Your task to perform on an android device: turn on data saver in the chrome app Image 0: 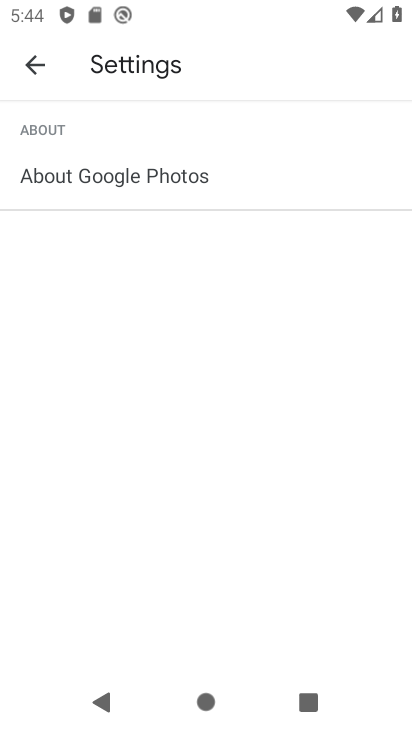
Step 0: press home button
Your task to perform on an android device: turn on data saver in the chrome app Image 1: 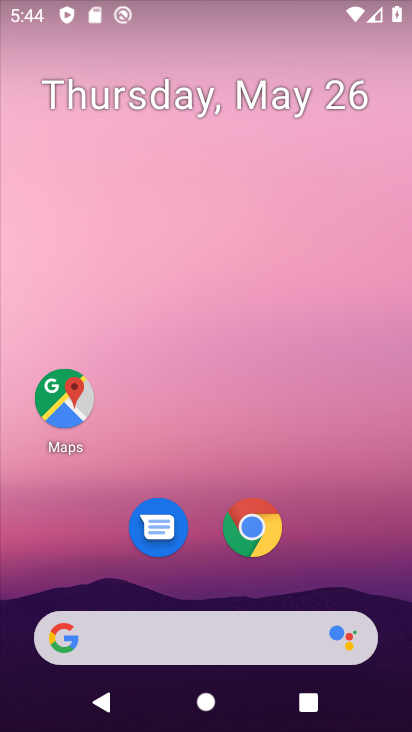
Step 1: click (259, 526)
Your task to perform on an android device: turn on data saver in the chrome app Image 2: 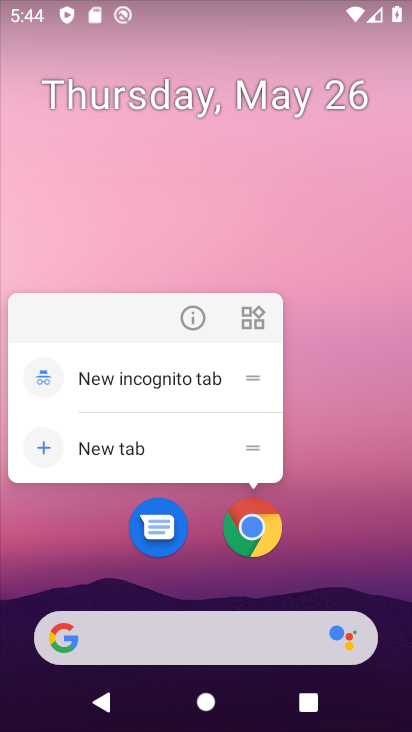
Step 2: click (252, 530)
Your task to perform on an android device: turn on data saver in the chrome app Image 3: 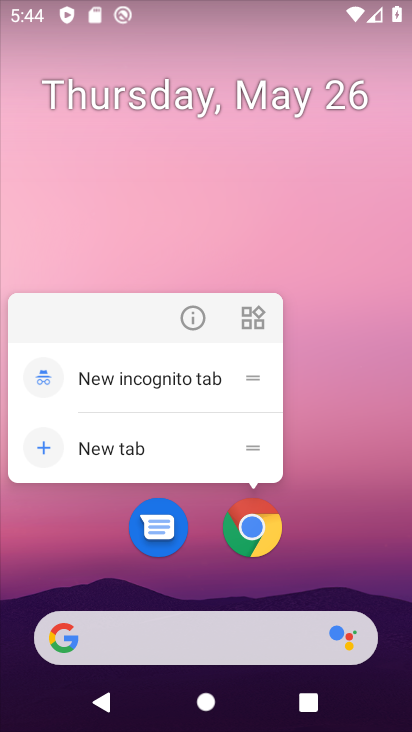
Step 3: click (252, 530)
Your task to perform on an android device: turn on data saver in the chrome app Image 4: 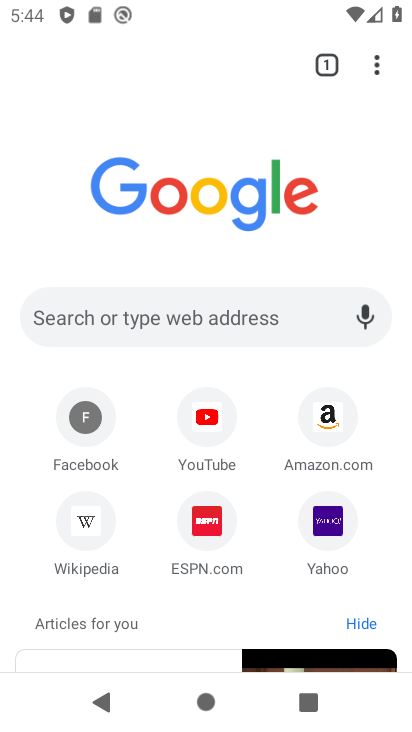
Step 4: click (375, 68)
Your task to perform on an android device: turn on data saver in the chrome app Image 5: 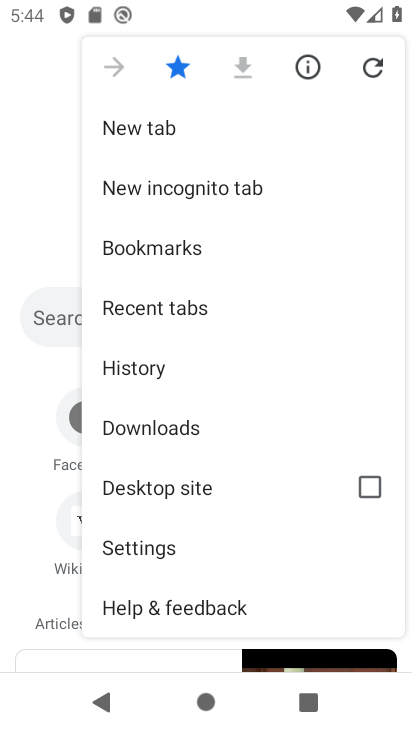
Step 5: click (161, 548)
Your task to perform on an android device: turn on data saver in the chrome app Image 6: 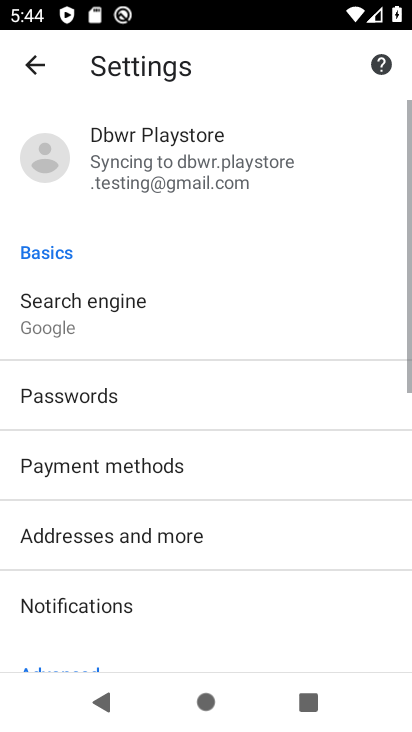
Step 6: drag from (156, 650) to (195, 254)
Your task to perform on an android device: turn on data saver in the chrome app Image 7: 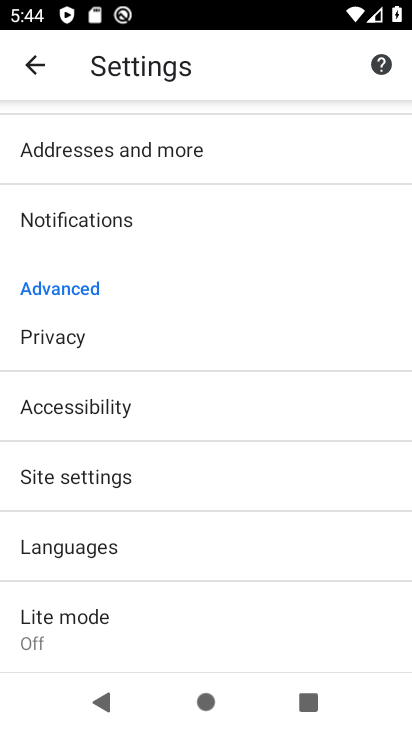
Step 7: click (88, 616)
Your task to perform on an android device: turn on data saver in the chrome app Image 8: 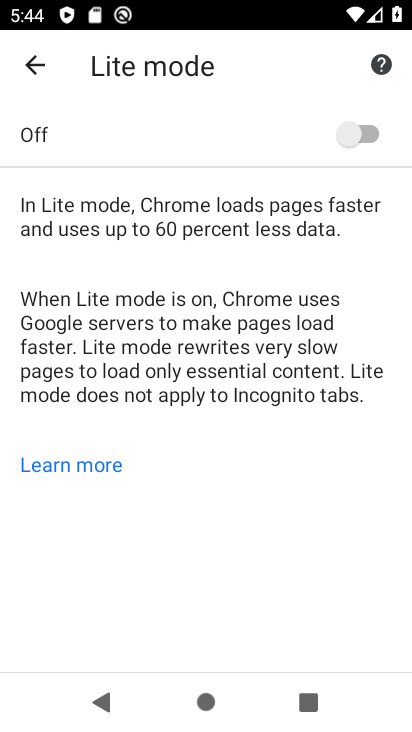
Step 8: click (363, 140)
Your task to perform on an android device: turn on data saver in the chrome app Image 9: 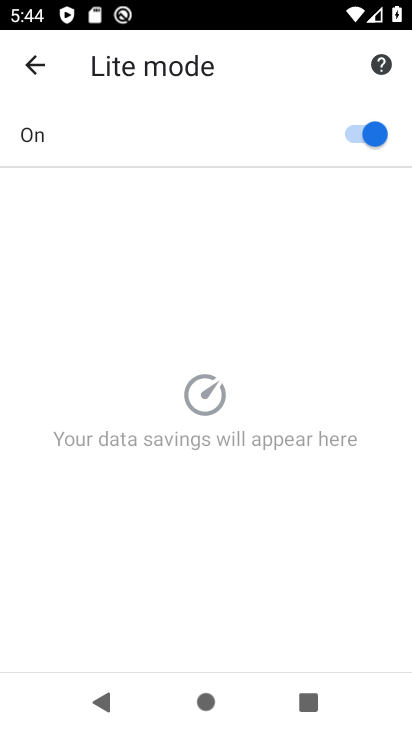
Step 9: task complete